Your task to perform on an android device: turn on the 12-hour format for clock Image 0: 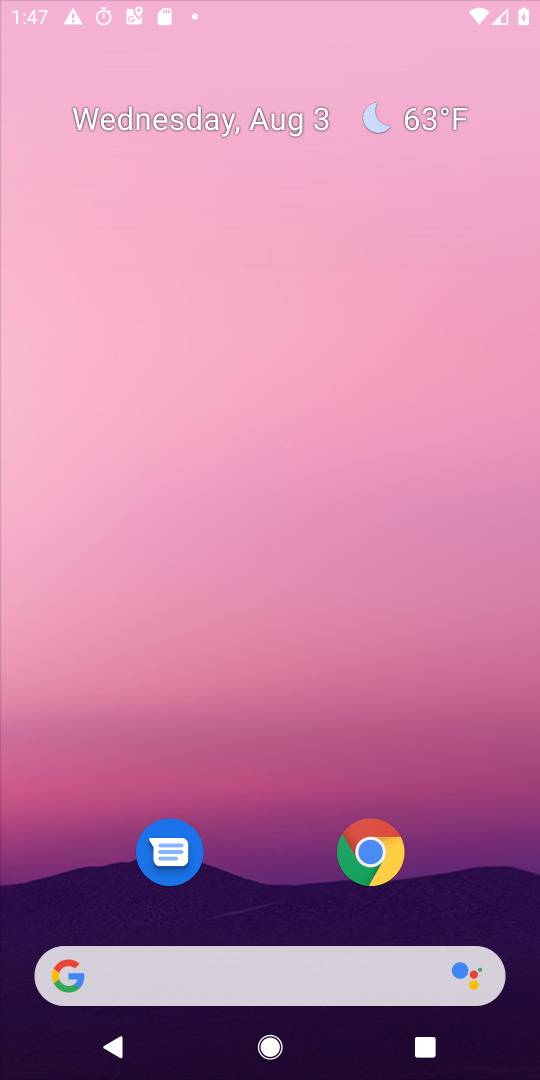
Step 0: drag from (488, 880) to (375, 97)
Your task to perform on an android device: turn on the 12-hour format for clock Image 1: 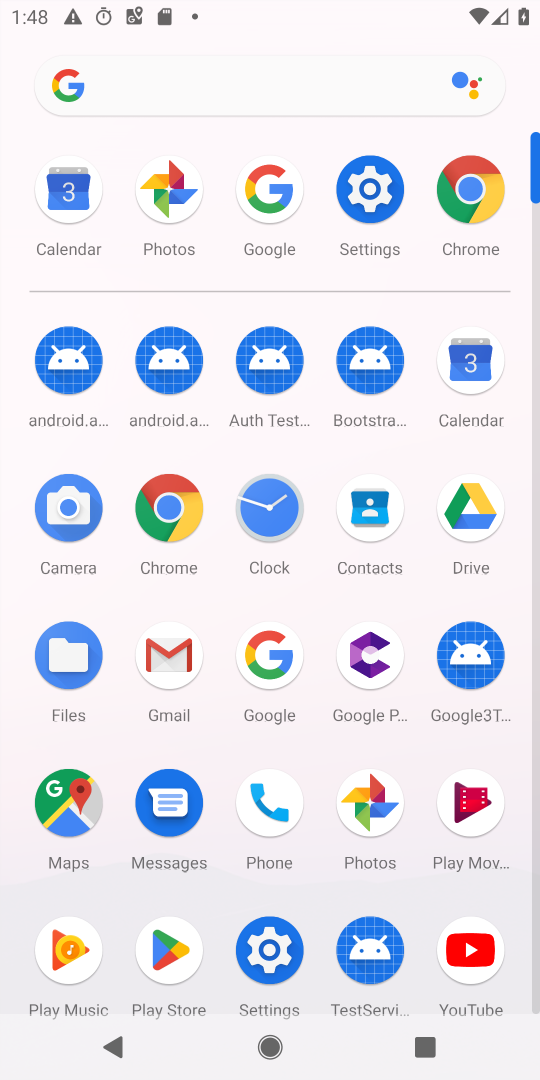
Step 1: click (272, 534)
Your task to perform on an android device: turn on the 12-hour format for clock Image 2: 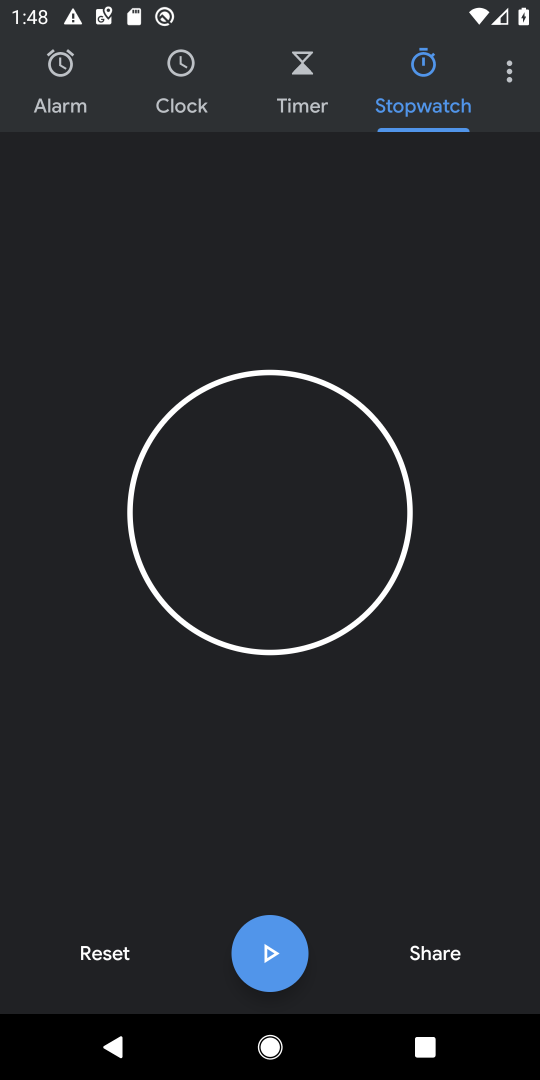
Step 2: click (509, 76)
Your task to perform on an android device: turn on the 12-hour format for clock Image 3: 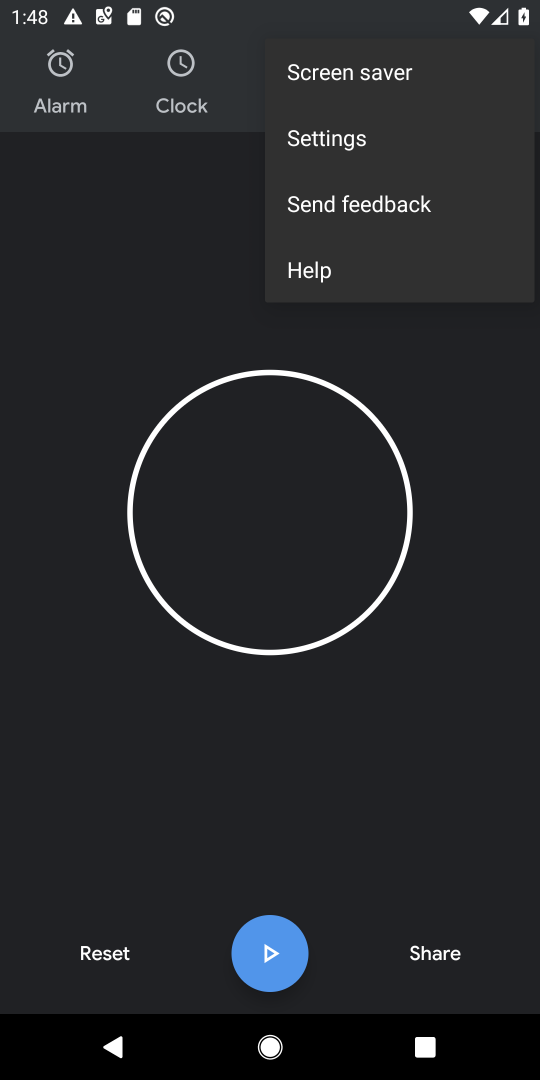
Step 3: click (324, 142)
Your task to perform on an android device: turn on the 12-hour format for clock Image 4: 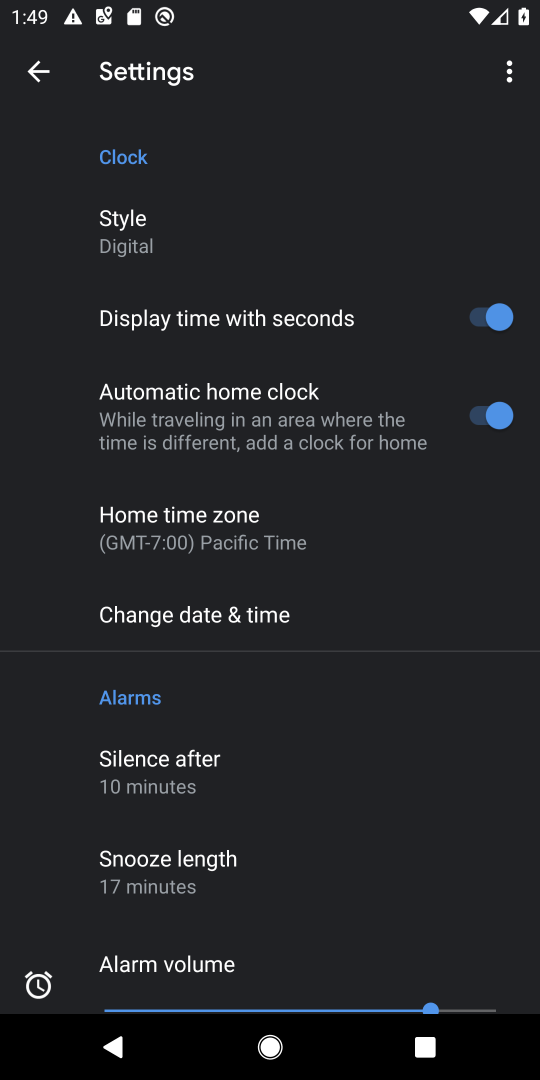
Step 4: click (191, 626)
Your task to perform on an android device: turn on the 12-hour format for clock Image 5: 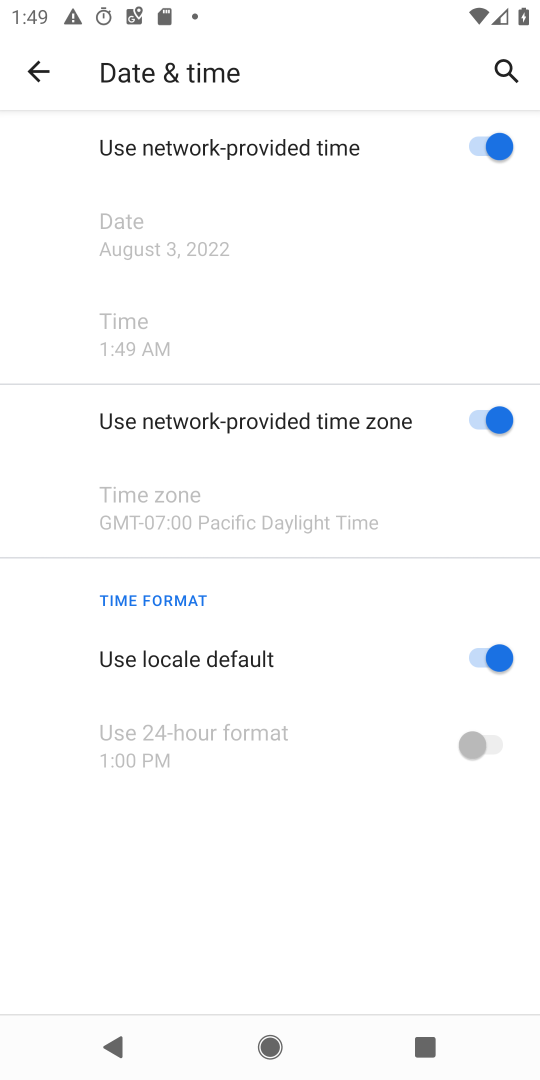
Step 5: task complete